Your task to perform on an android device: find which apps use the phone's location Image 0: 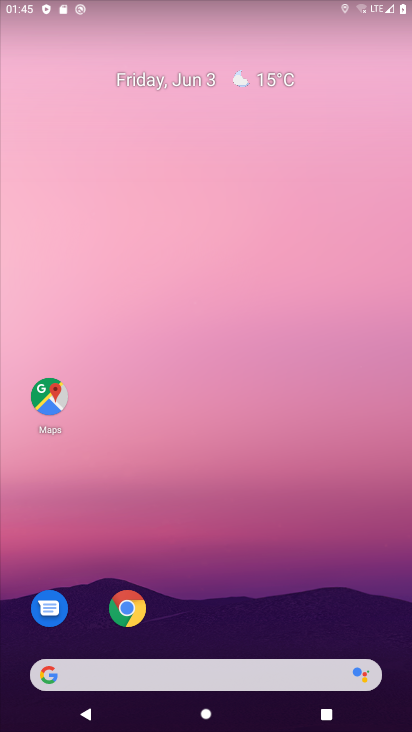
Step 0: drag from (278, 582) to (178, 113)
Your task to perform on an android device: find which apps use the phone's location Image 1: 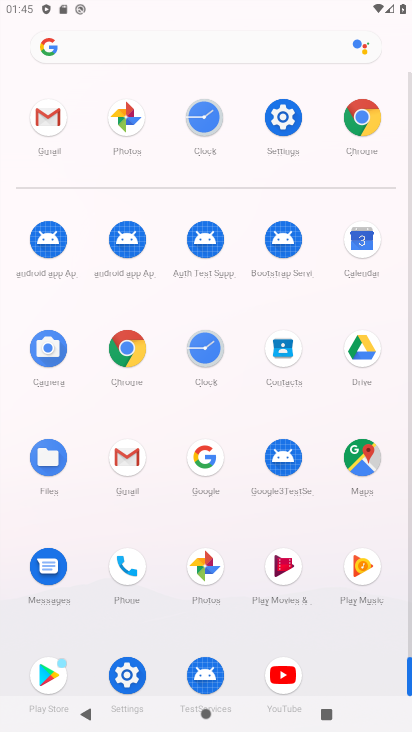
Step 1: click (296, 120)
Your task to perform on an android device: find which apps use the phone's location Image 2: 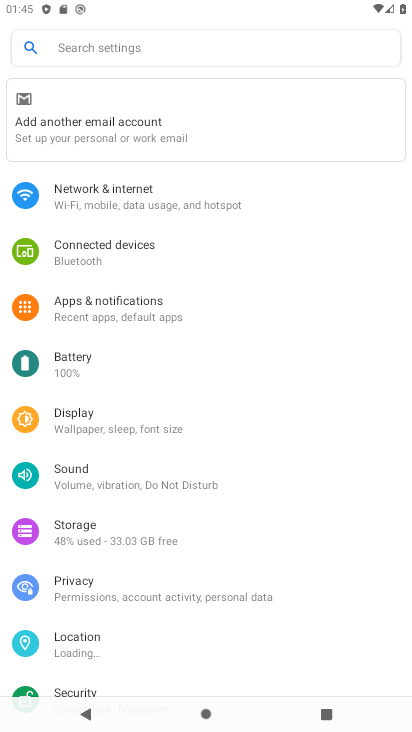
Step 2: click (82, 639)
Your task to perform on an android device: find which apps use the phone's location Image 3: 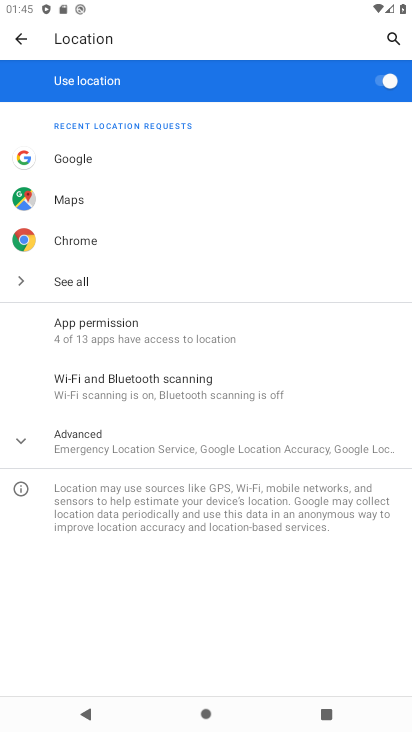
Step 3: click (86, 355)
Your task to perform on an android device: find which apps use the phone's location Image 4: 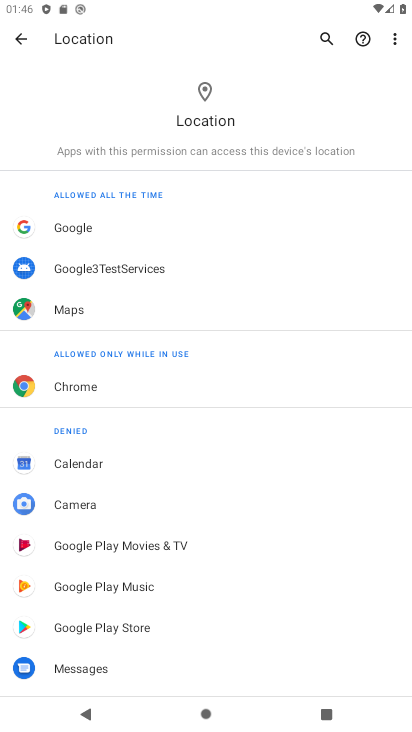
Step 4: task complete